Your task to perform on an android device: Open privacy settings Image 0: 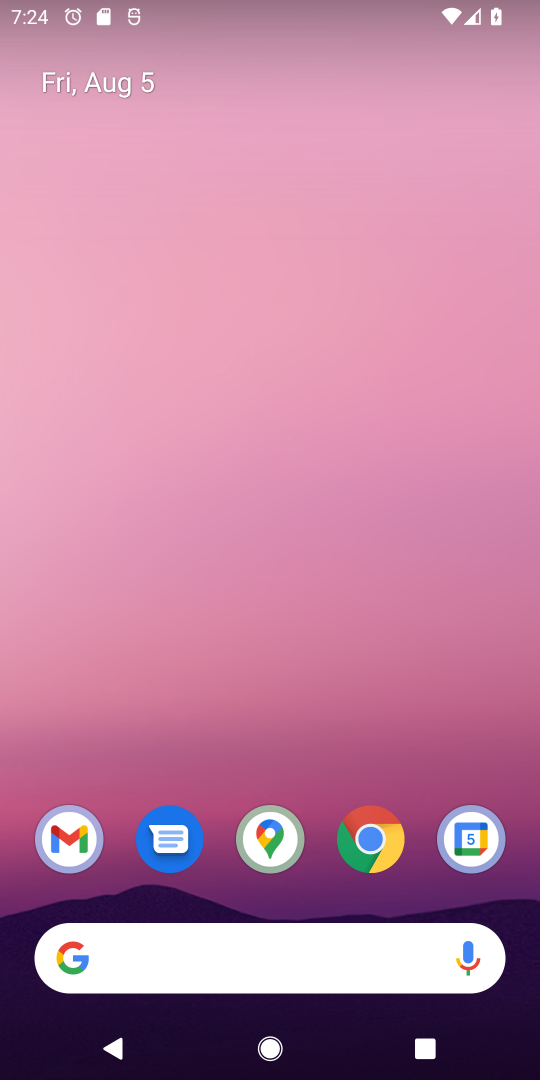
Step 0: drag from (265, 729) to (227, 193)
Your task to perform on an android device: Open privacy settings Image 1: 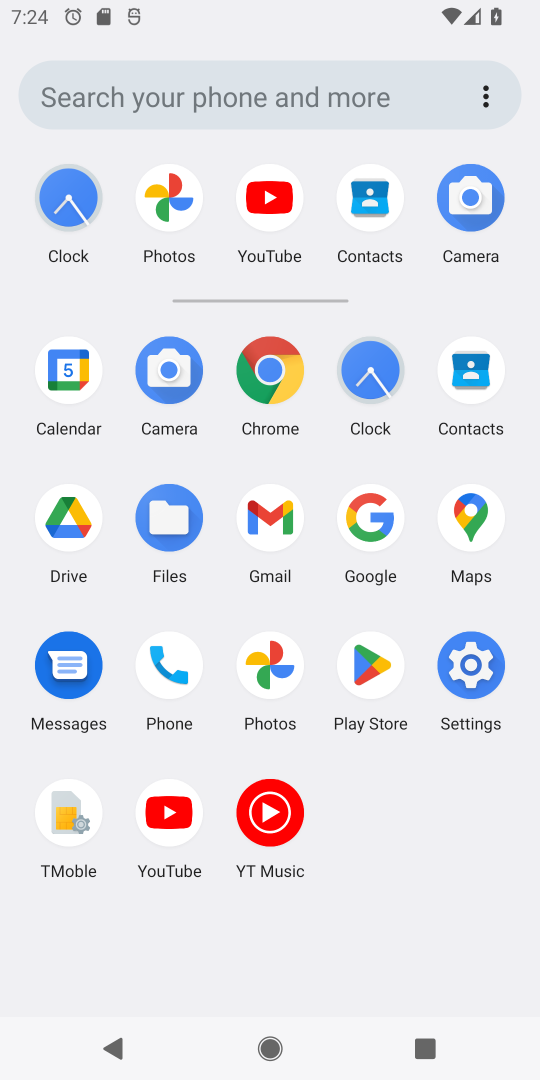
Step 1: click (492, 675)
Your task to perform on an android device: Open privacy settings Image 2: 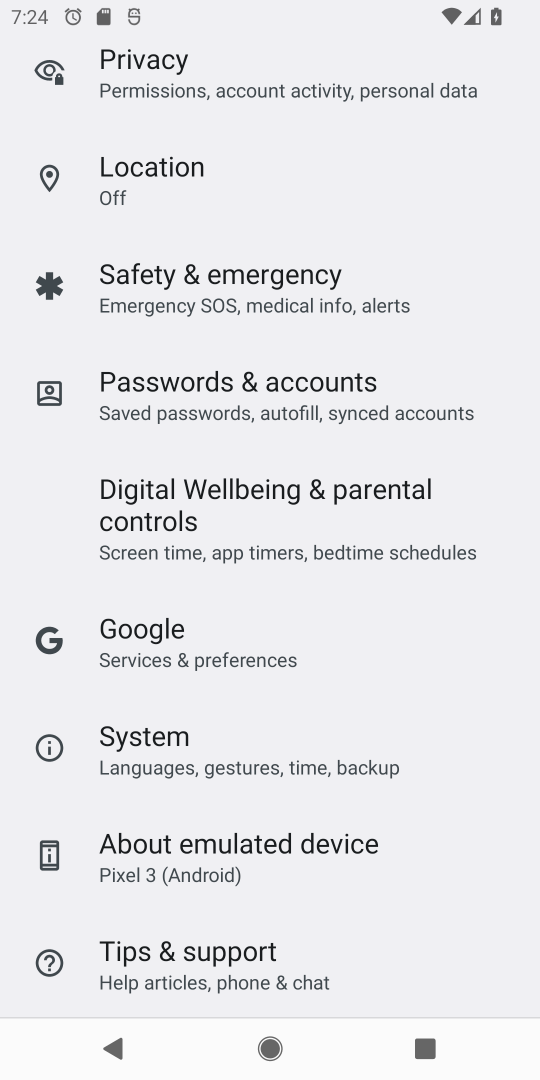
Step 2: click (269, 69)
Your task to perform on an android device: Open privacy settings Image 3: 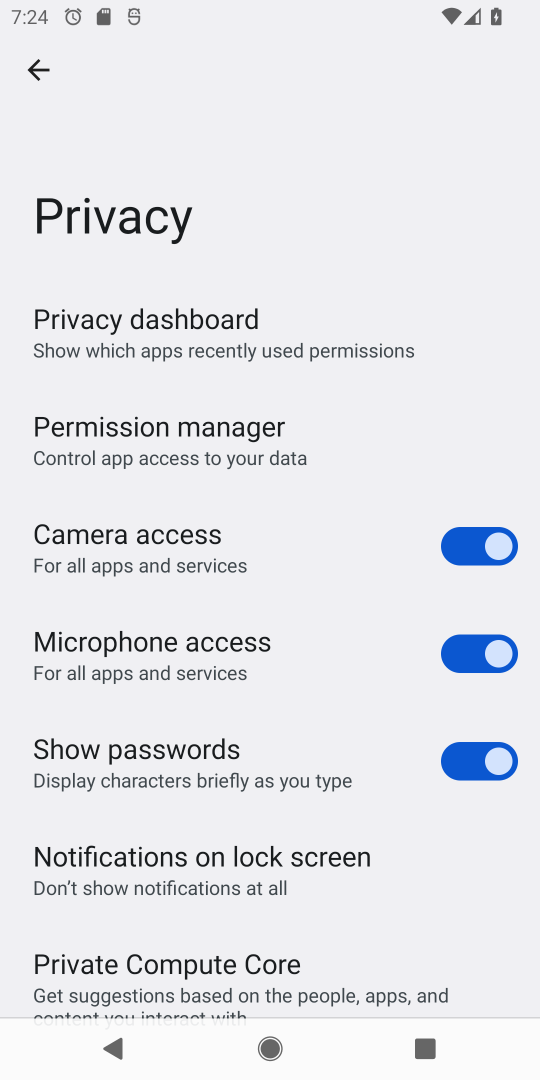
Step 3: task complete